Your task to perform on an android device: Open calendar and show me the first week of next month Image 0: 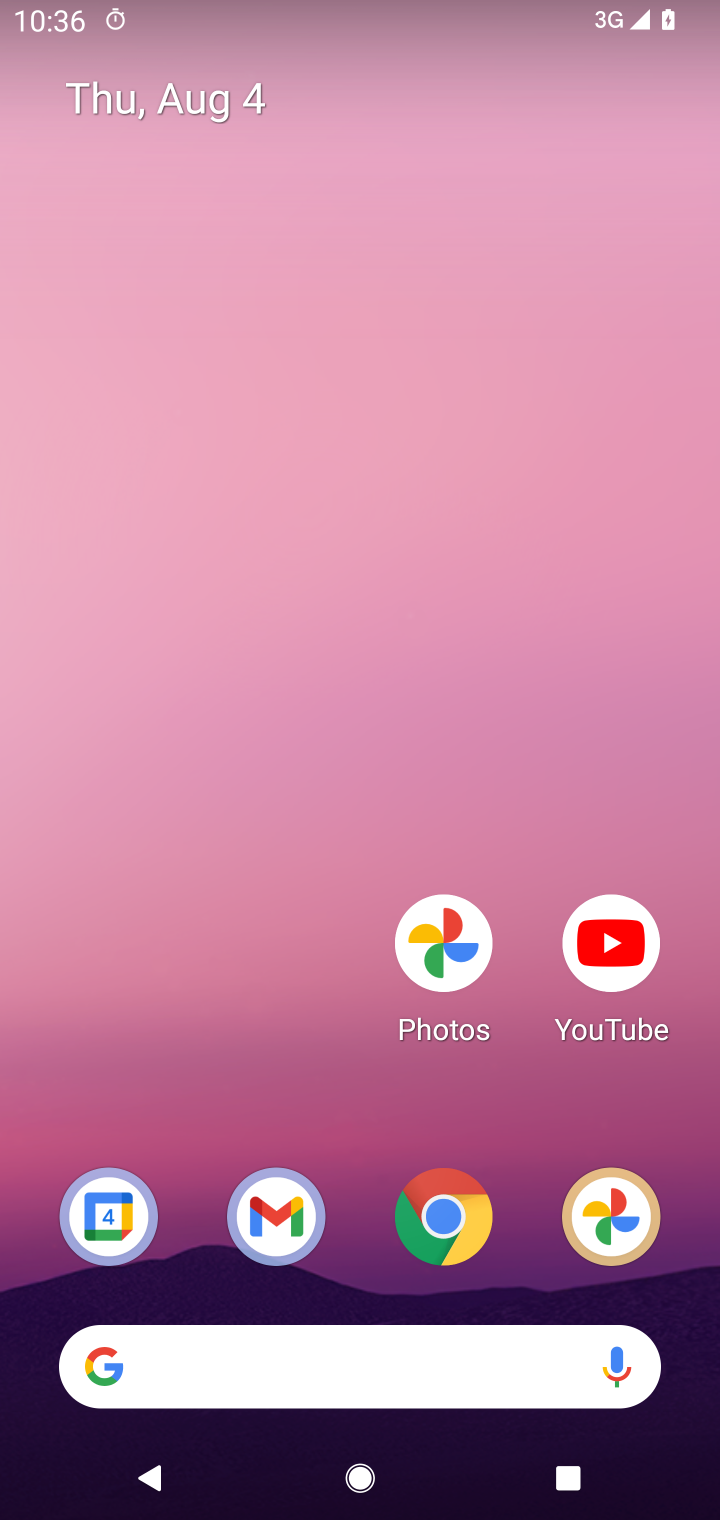
Step 0: drag from (325, 1087) to (228, 121)
Your task to perform on an android device: Open calendar and show me the first week of next month Image 1: 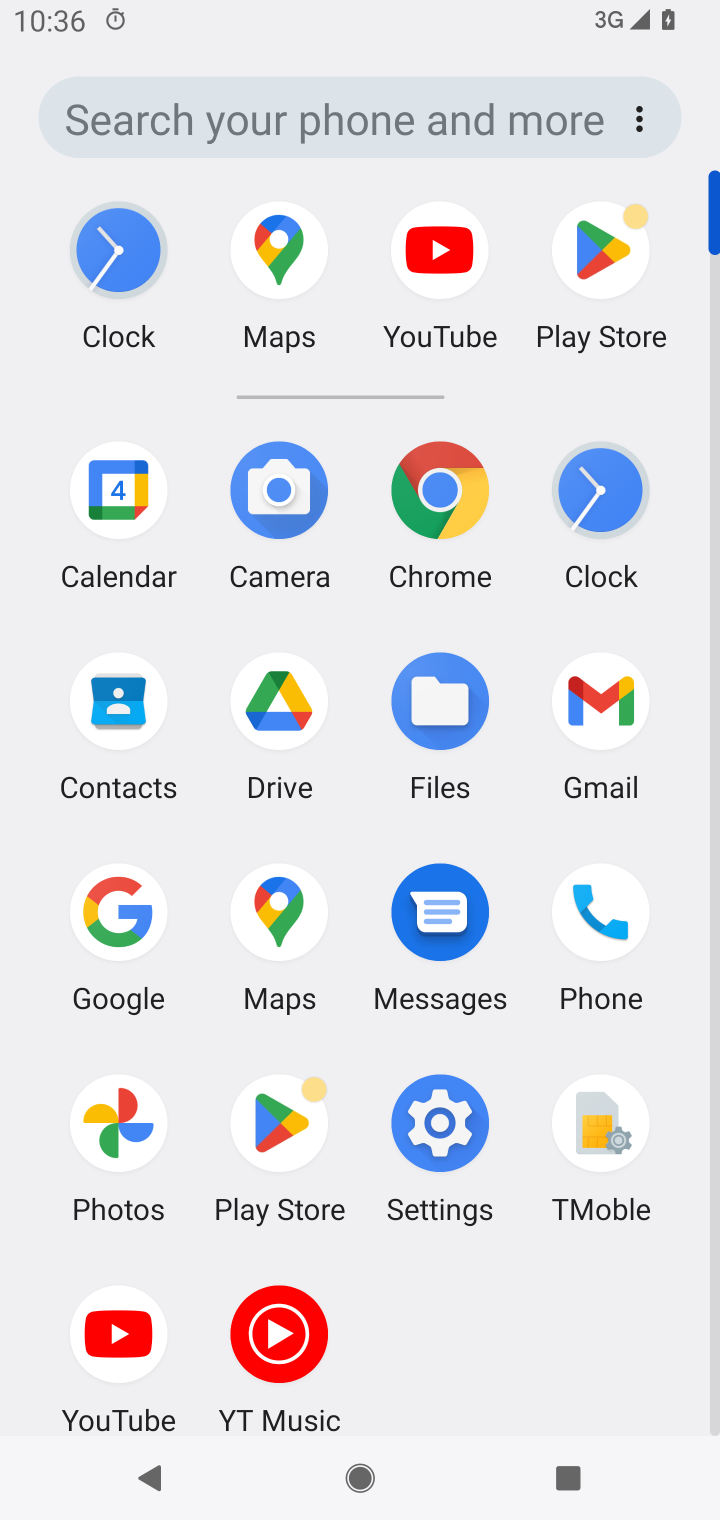
Step 1: click (114, 474)
Your task to perform on an android device: Open calendar and show me the first week of next month Image 2: 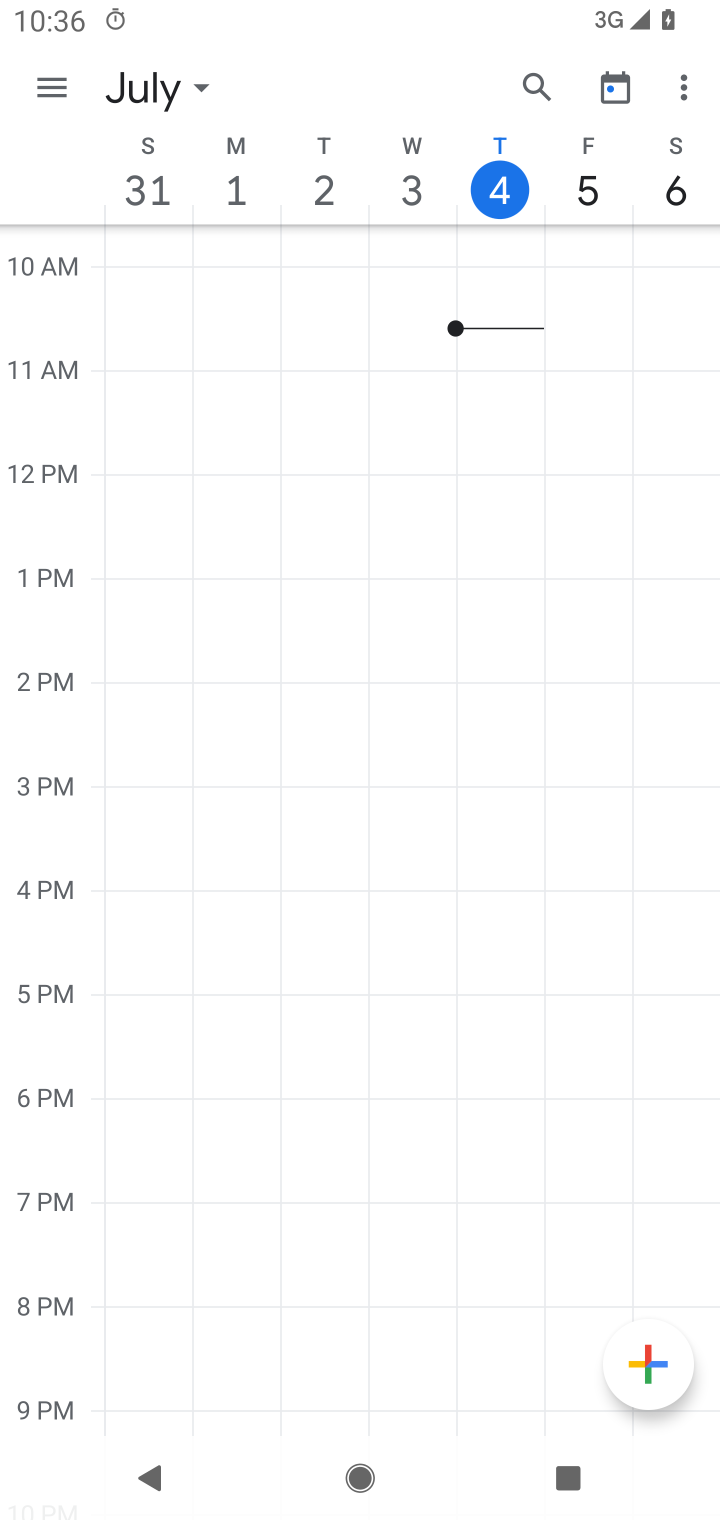
Step 2: click (200, 86)
Your task to perform on an android device: Open calendar and show me the first week of next month Image 3: 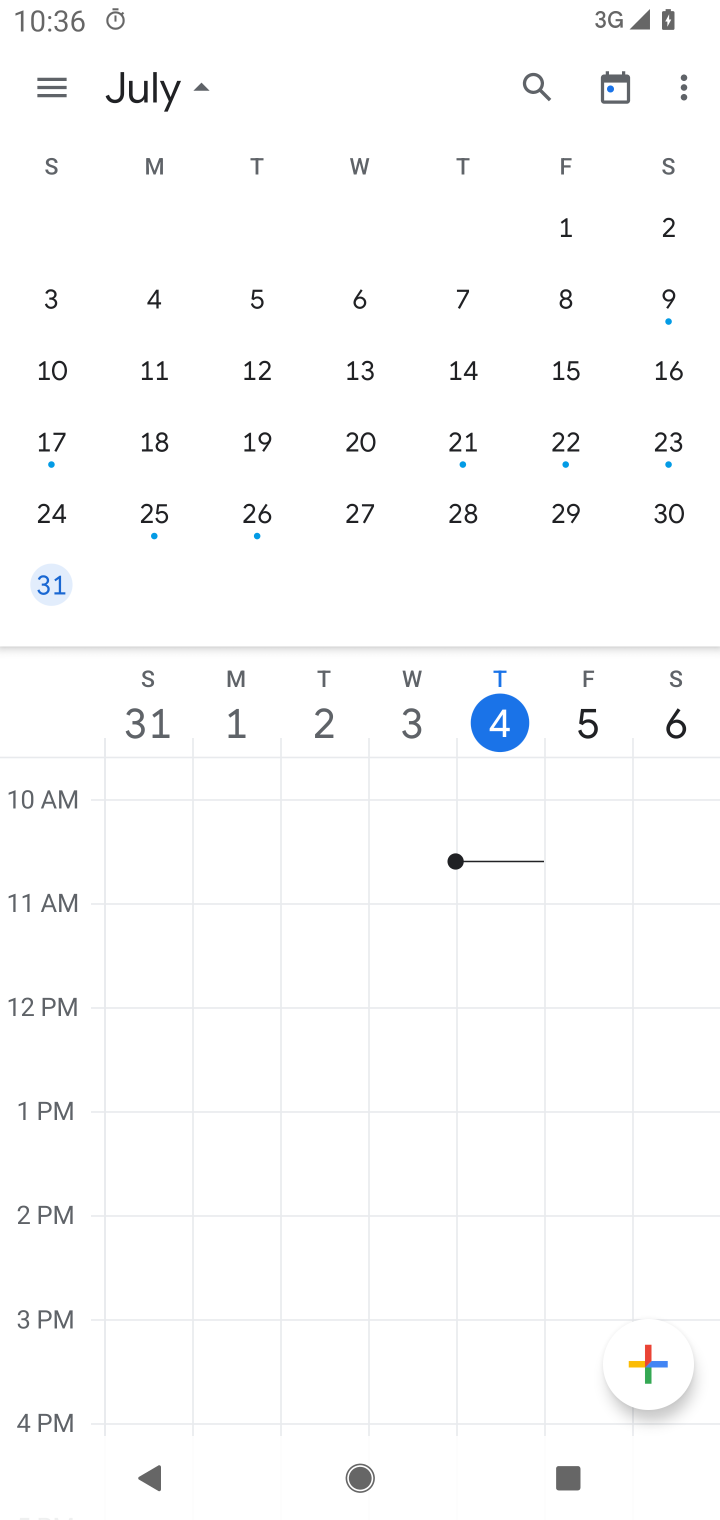
Step 3: drag from (575, 437) to (98, 413)
Your task to perform on an android device: Open calendar and show me the first week of next month Image 4: 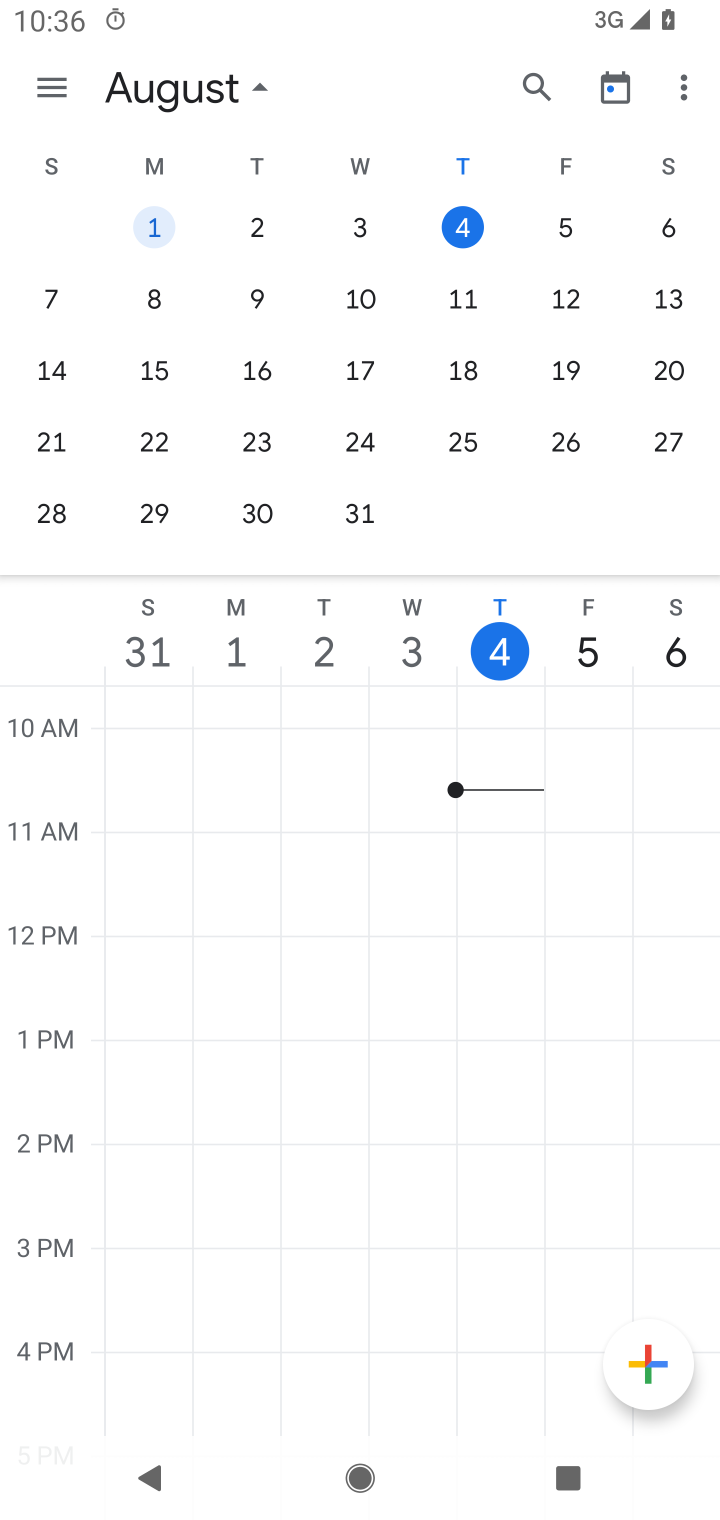
Step 4: drag from (629, 424) to (114, 424)
Your task to perform on an android device: Open calendar and show me the first week of next month Image 5: 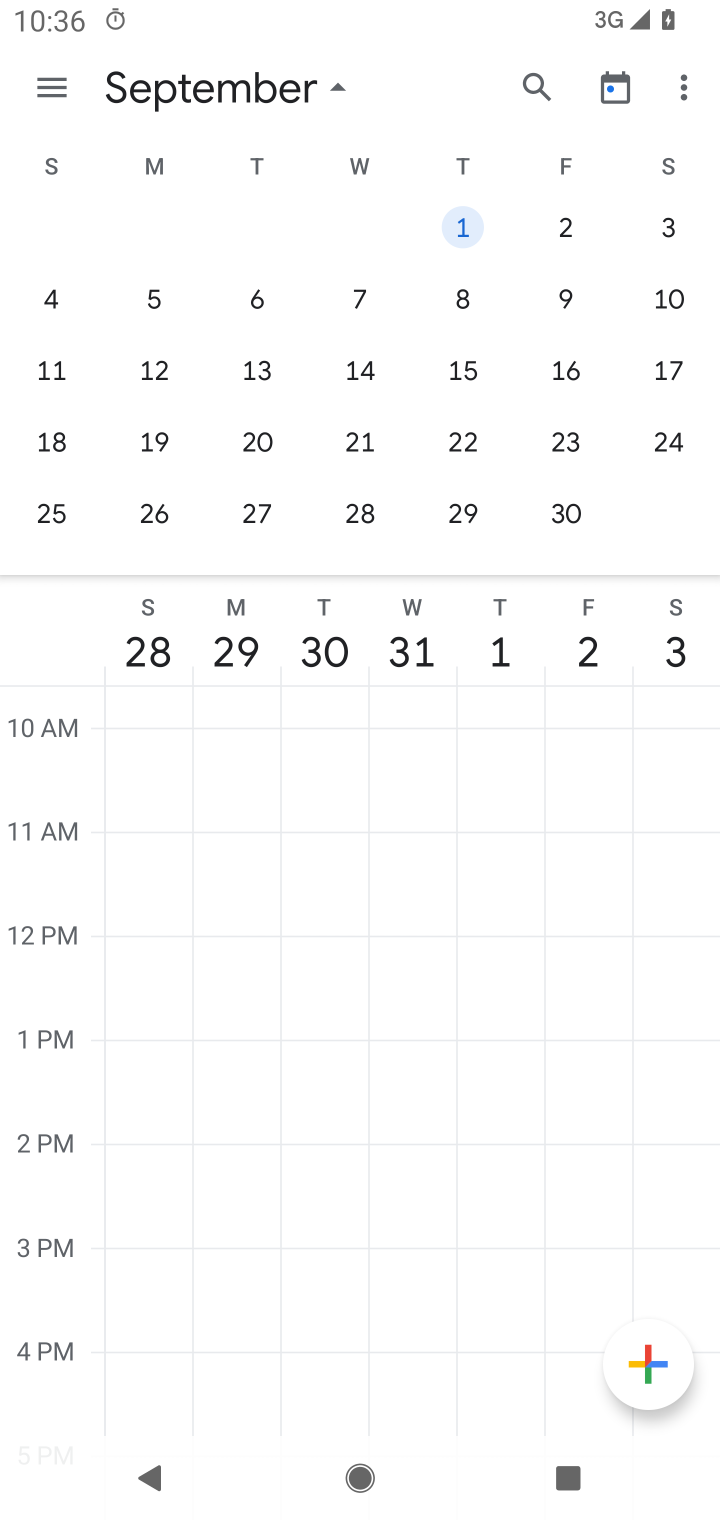
Step 5: click (145, 506)
Your task to perform on an android device: Open calendar and show me the first week of next month Image 6: 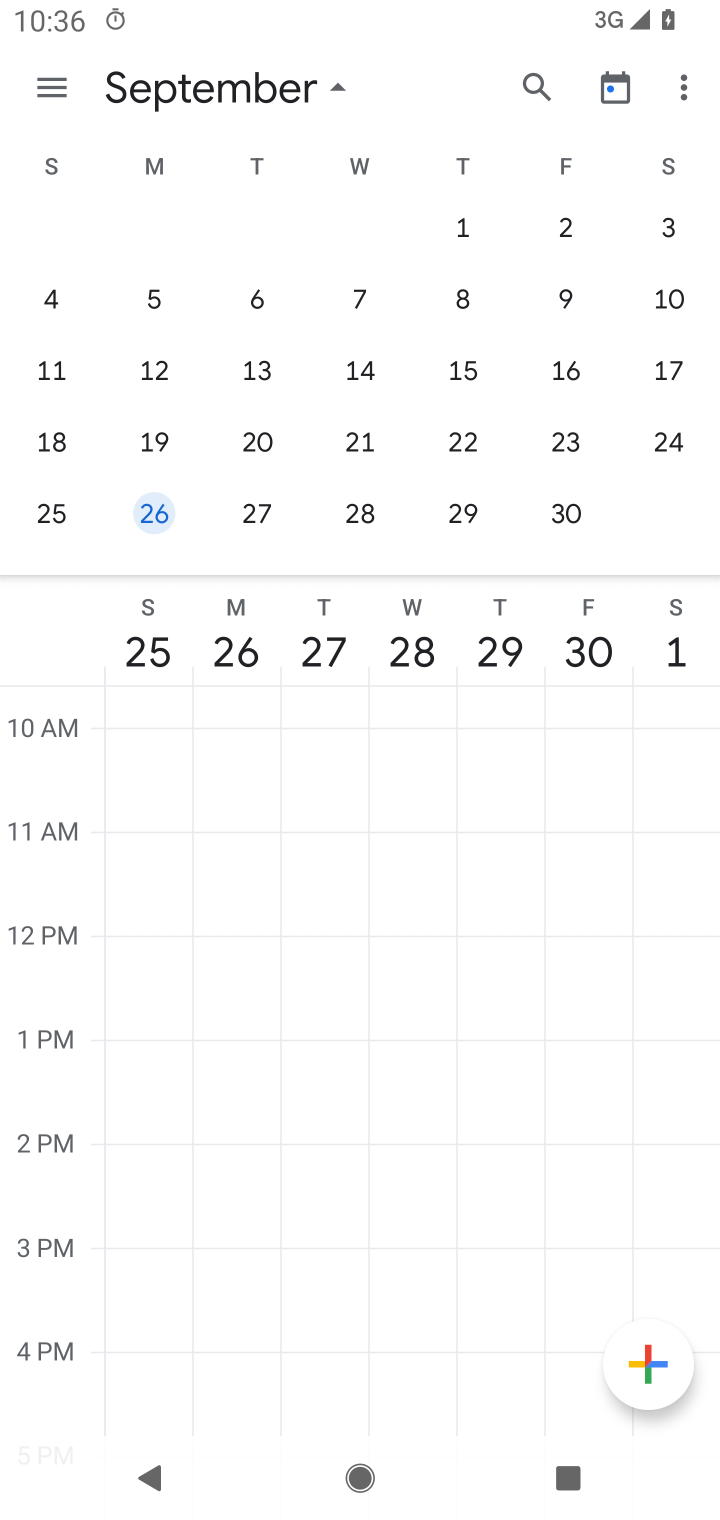
Step 6: click (54, 79)
Your task to perform on an android device: Open calendar and show me the first week of next month Image 7: 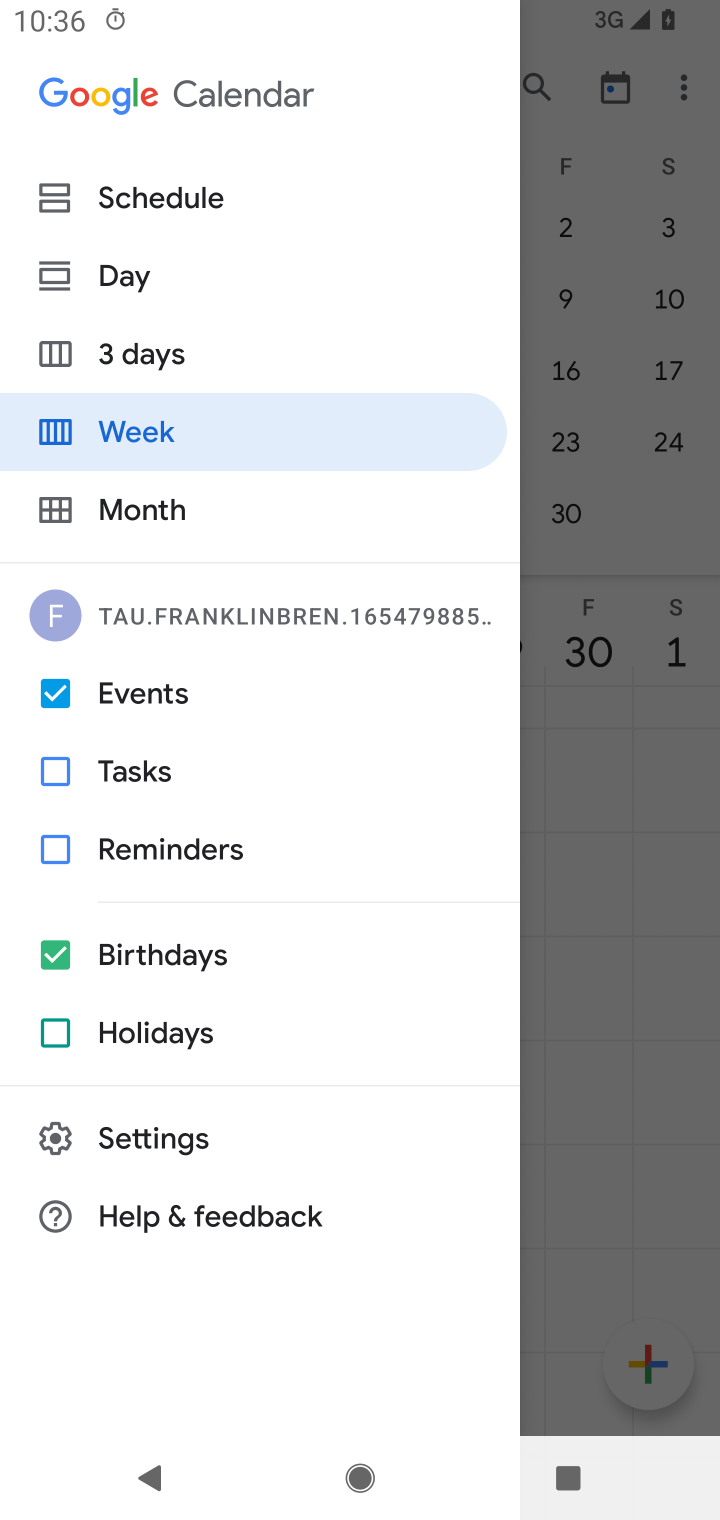
Step 7: click (164, 427)
Your task to perform on an android device: Open calendar and show me the first week of next month Image 8: 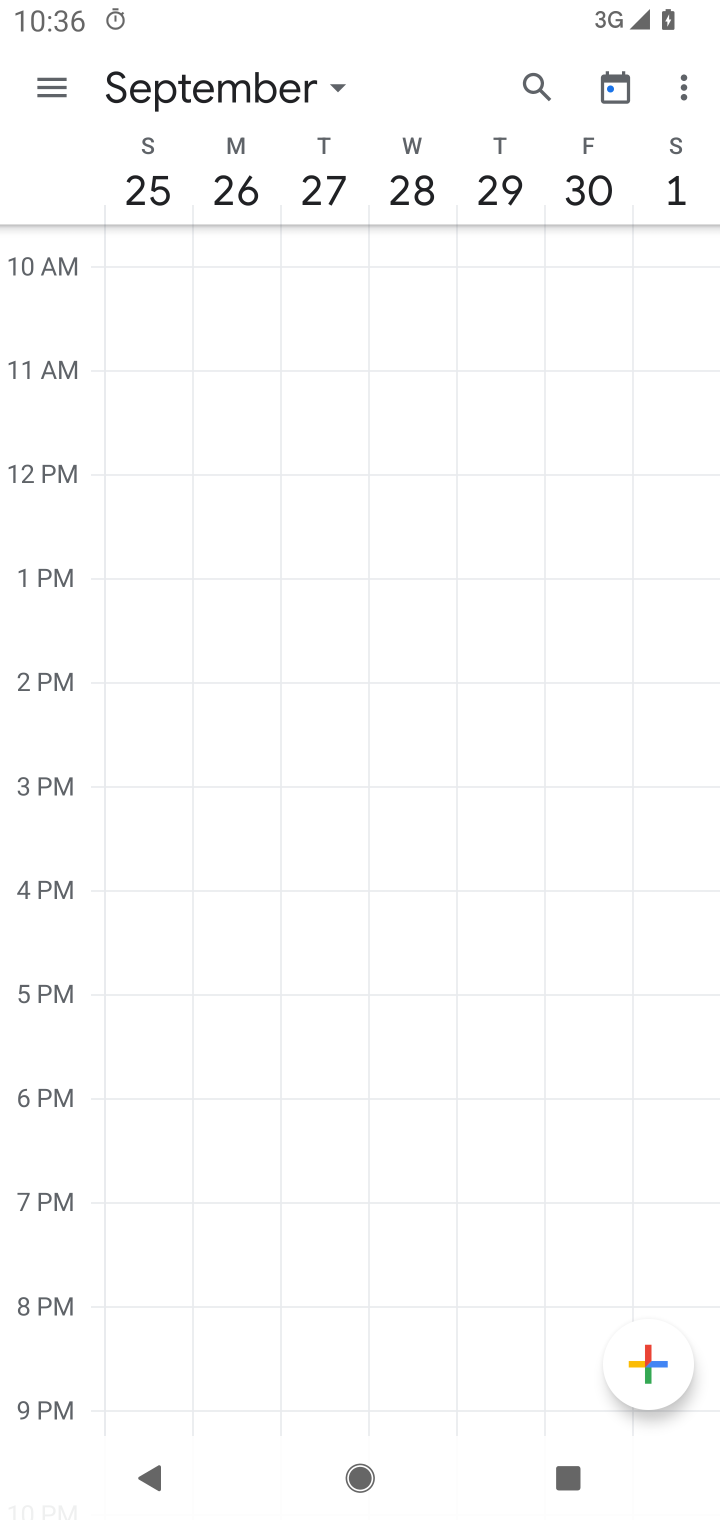
Step 8: task complete